Your task to perform on an android device: Open the web browser Image 0: 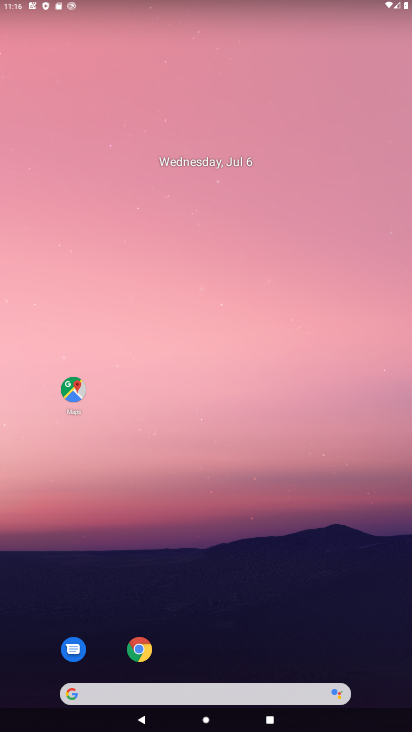
Step 0: drag from (364, 643) to (273, 73)
Your task to perform on an android device: Open the web browser Image 1: 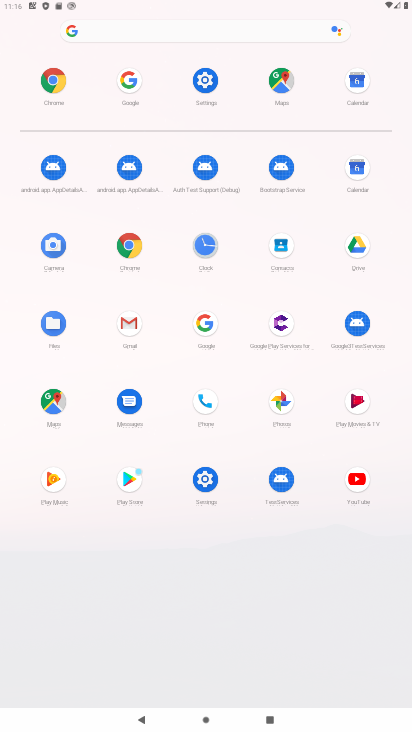
Step 1: click (137, 90)
Your task to perform on an android device: Open the web browser Image 2: 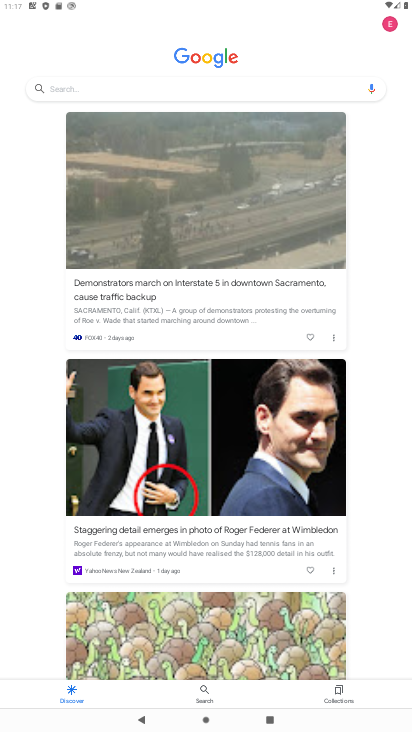
Step 2: click (148, 89)
Your task to perform on an android device: Open the web browser Image 3: 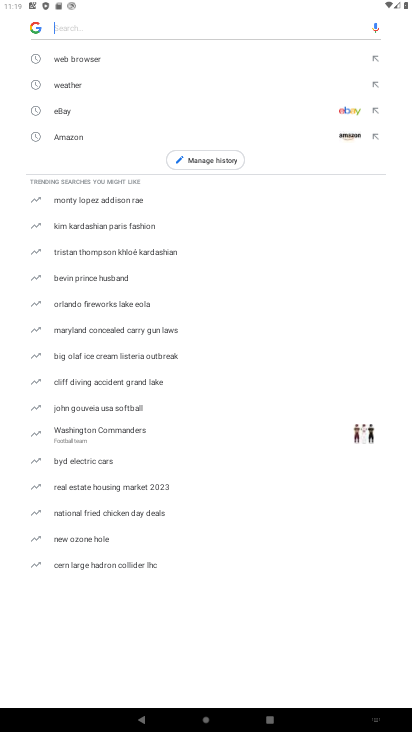
Step 3: click (101, 60)
Your task to perform on an android device: Open the web browser Image 4: 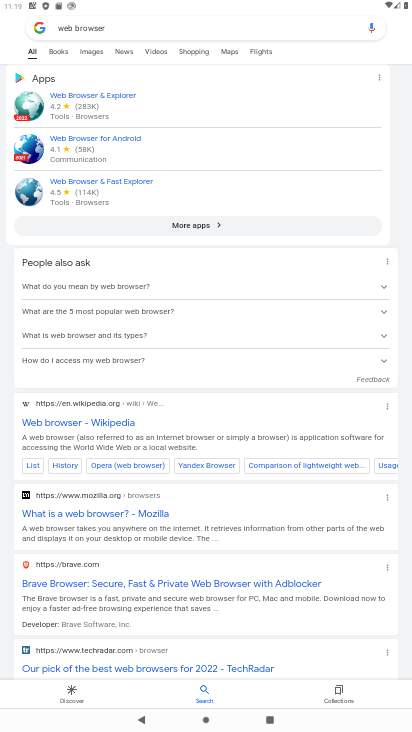
Step 4: task complete